Your task to perform on an android device: find which apps use the phone's location Image 0: 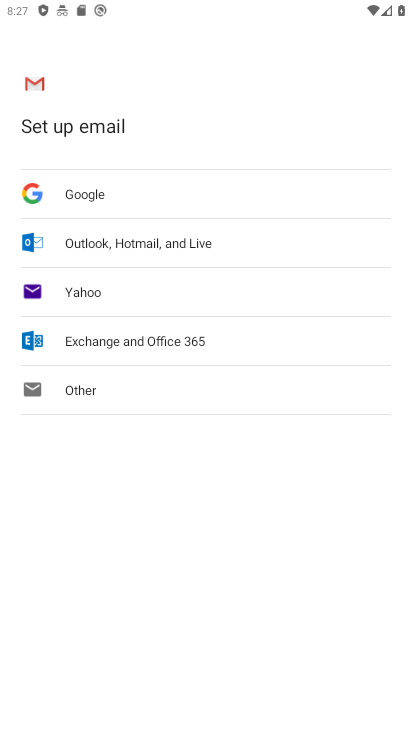
Step 0: press home button
Your task to perform on an android device: find which apps use the phone's location Image 1: 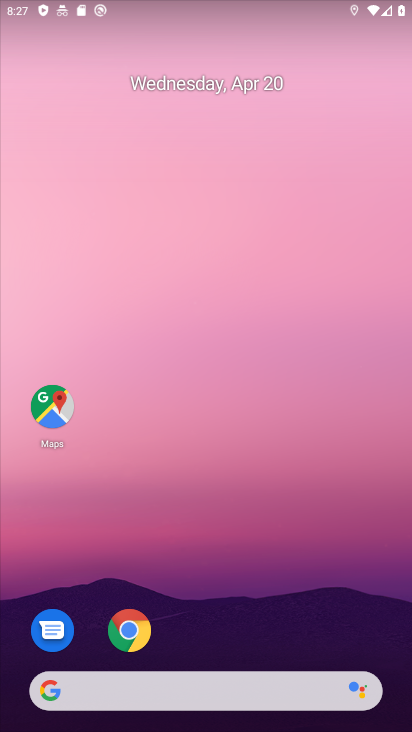
Step 1: drag from (206, 576) to (240, 79)
Your task to perform on an android device: find which apps use the phone's location Image 2: 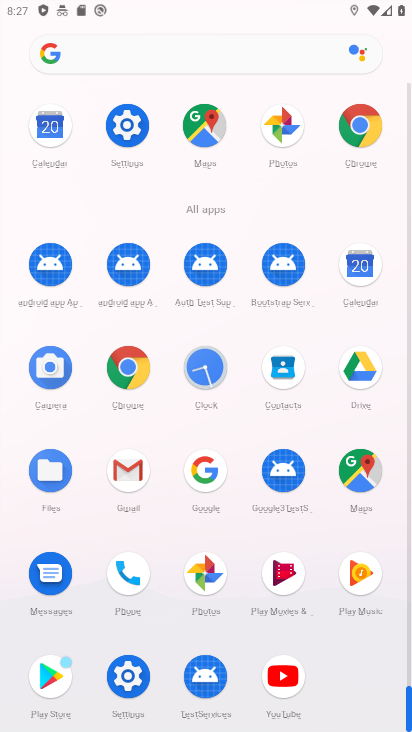
Step 2: click (119, 680)
Your task to perform on an android device: find which apps use the phone's location Image 3: 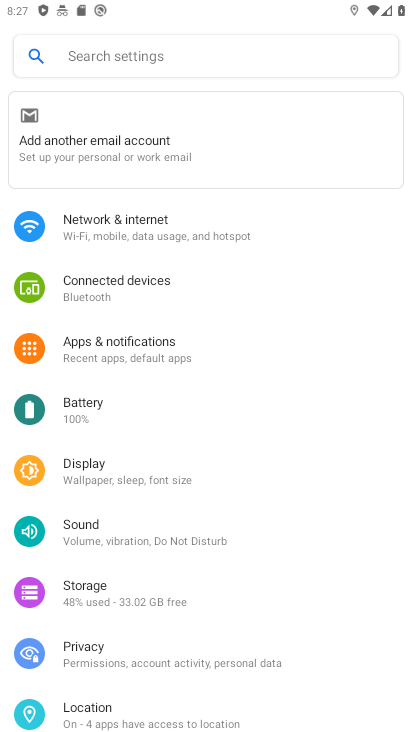
Step 3: click (76, 701)
Your task to perform on an android device: find which apps use the phone's location Image 4: 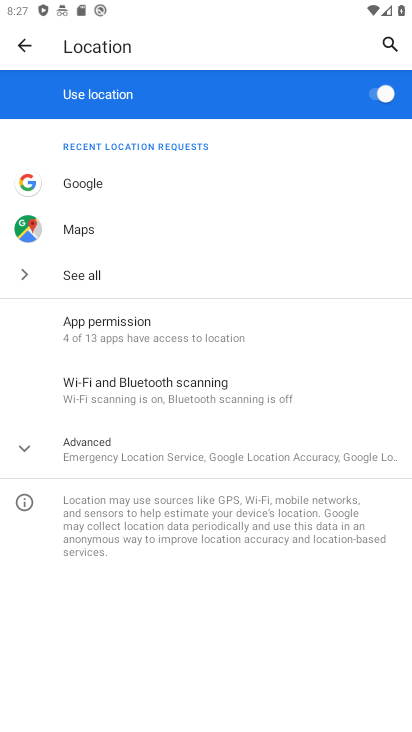
Step 4: click (106, 328)
Your task to perform on an android device: find which apps use the phone's location Image 5: 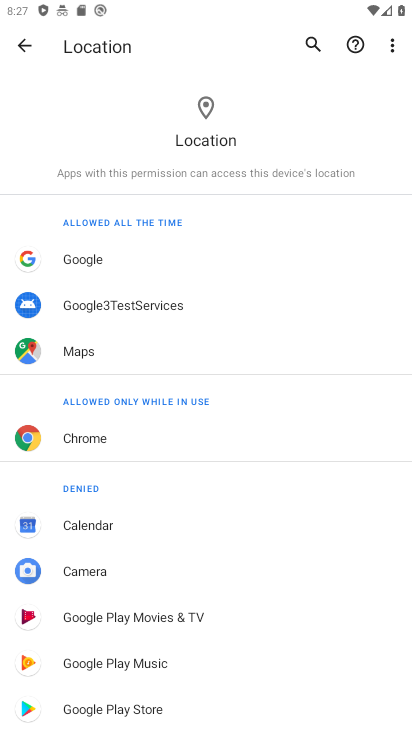
Step 5: task complete